Your task to perform on an android device: Open the web browser Image 0: 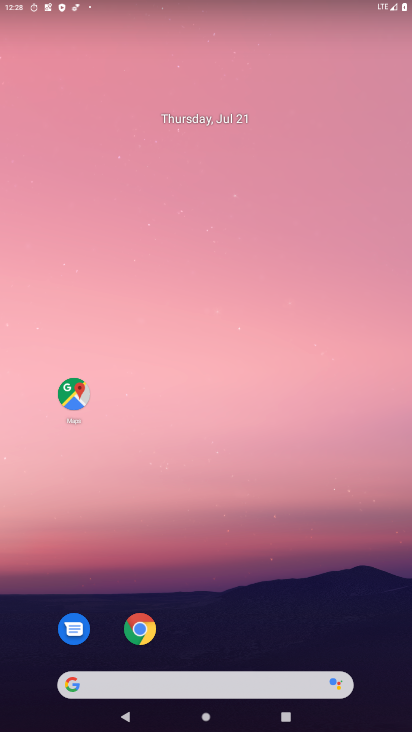
Step 0: drag from (291, 602) to (252, 2)
Your task to perform on an android device: Open the web browser Image 1: 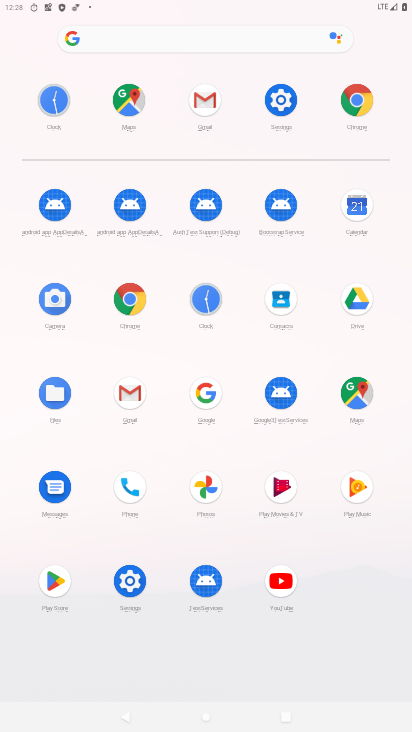
Step 1: click (136, 304)
Your task to perform on an android device: Open the web browser Image 2: 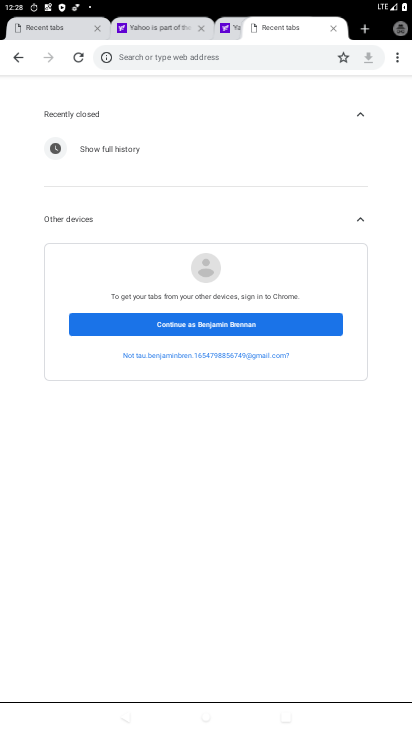
Step 2: task complete